Your task to perform on an android device: check data usage Image 0: 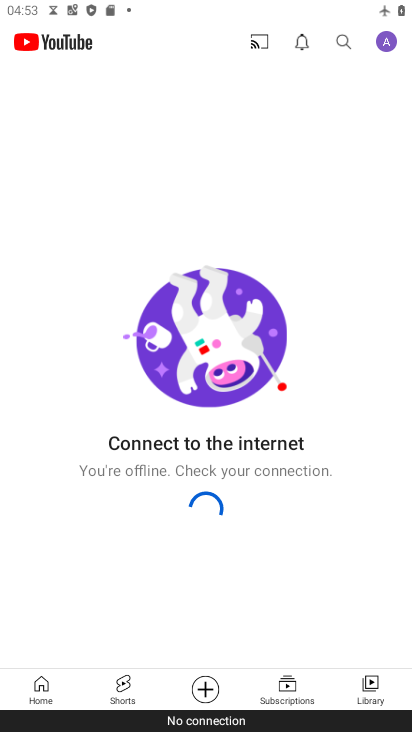
Step 0: press home button
Your task to perform on an android device: check data usage Image 1: 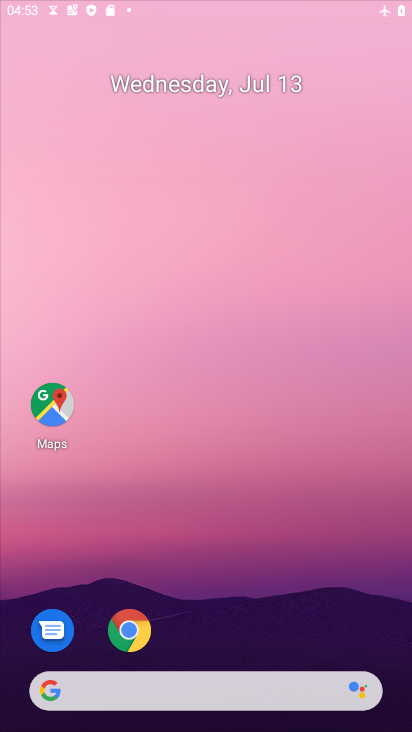
Step 1: drag from (264, 668) to (249, 93)
Your task to perform on an android device: check data usage Image 2: 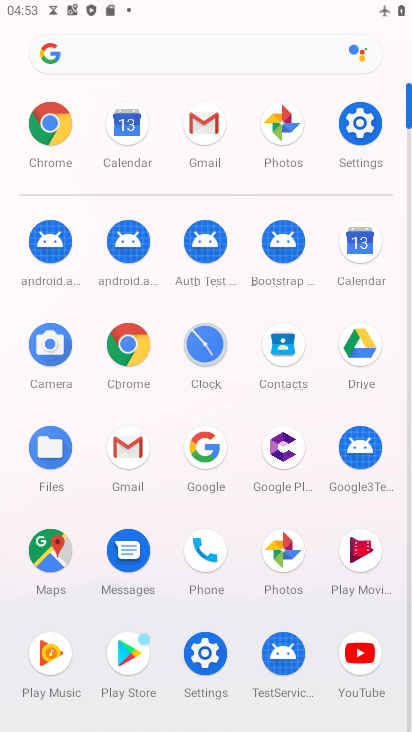
Step 2: click (357, 134)
Your task to perform on an android device: check data usage Image 3: 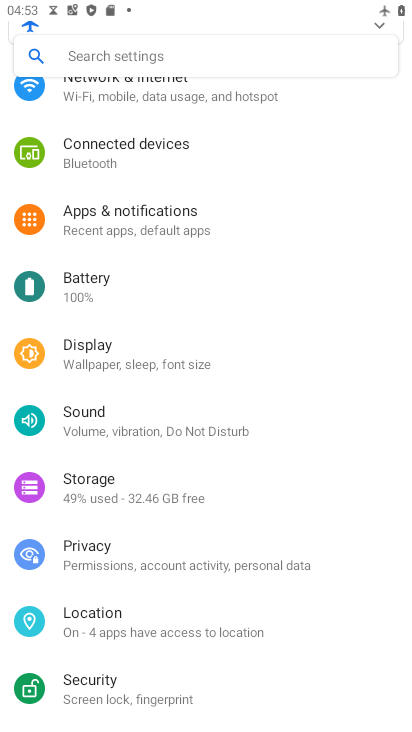
Step 3: click (189, 101)
Your task to perform on an android device: check data usage Image 4: 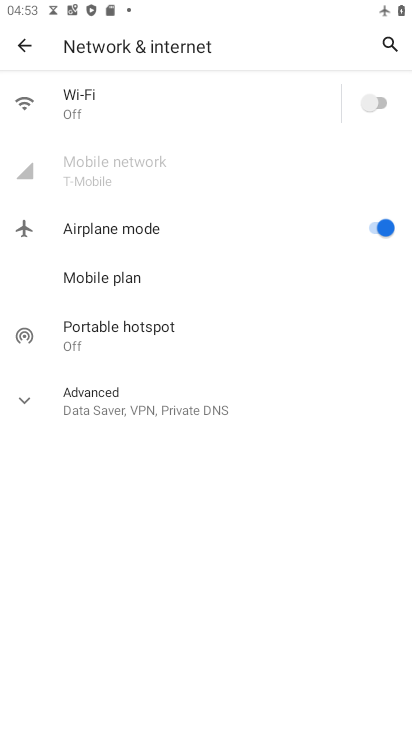
Step 4: click (134, 286)
Your task to perform on an android device: check data usage Image 5: 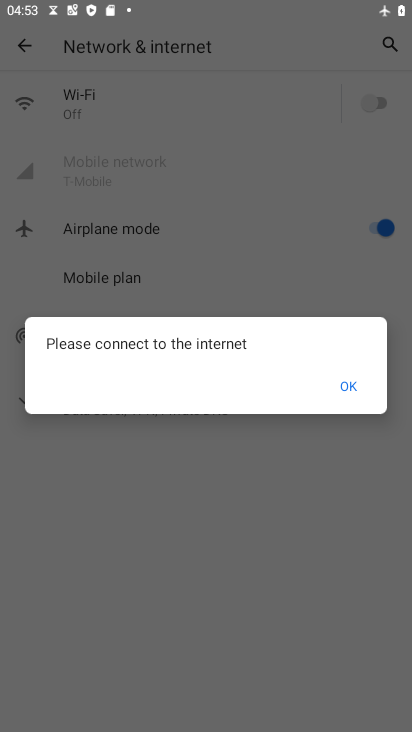
Step 5: click (346, 384)
Your task to perform on an android device: check data usage Image 6: 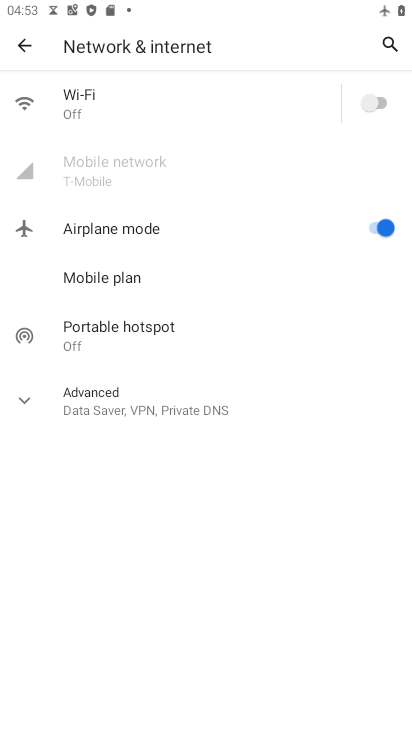
Step 6: task complete